Your task to perform on an android device: toggle location history Image 0: 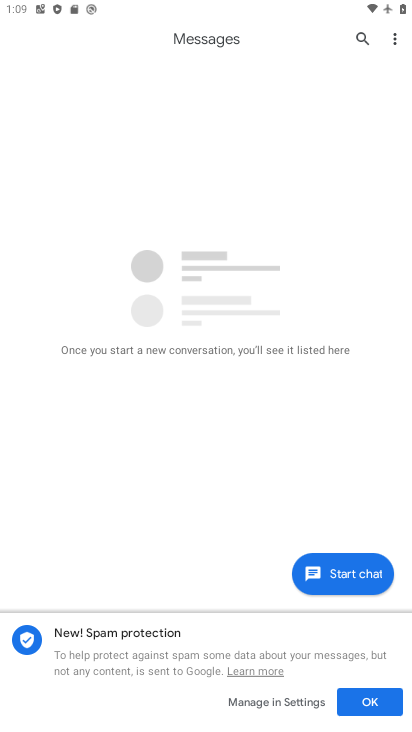
Step 0: press home button
Your task to perform on an android device: toggle location history Image 1: 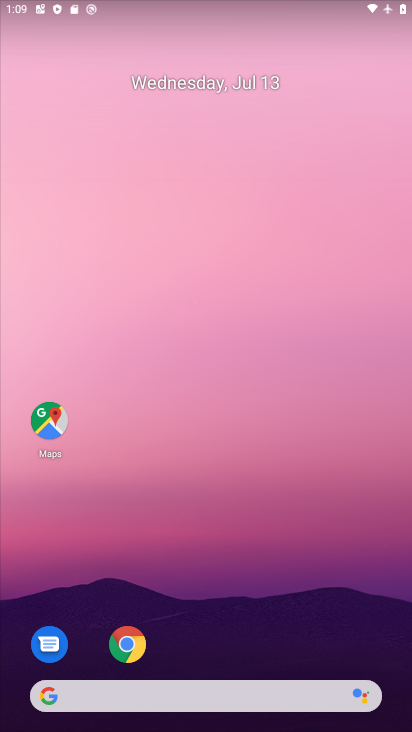
Step 1: drag from (321, 587) to (323, 37)
Your task to perform on an android device: toggle location history Image 2: 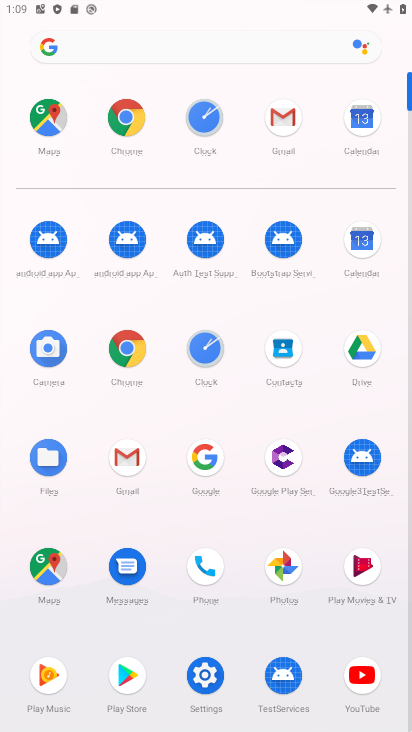
Step 2: click (211, 679)
Your task to perform on an android device: toggle location history Image 3: 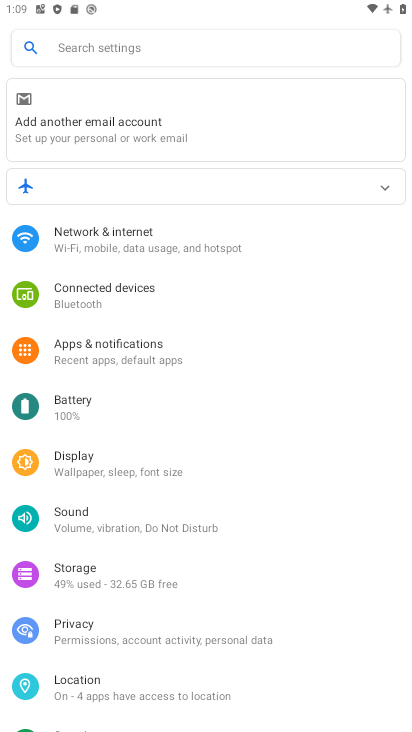
Step 3: drag from (168, 664) to (223, 312)
Your task to perform on an android device: toggle location history Image 4: 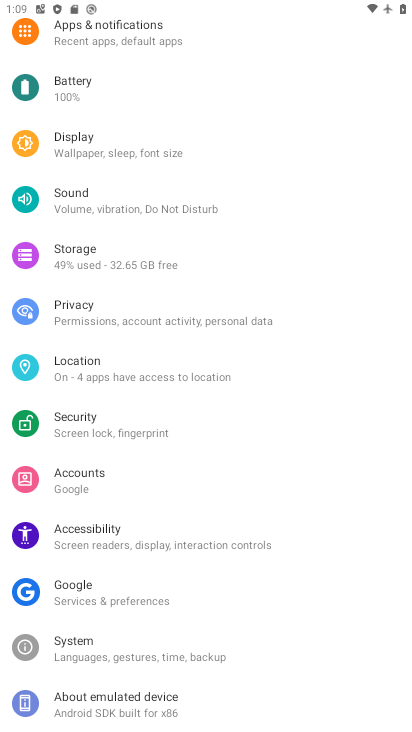
Step 4: click (87, 361)
Your task to perform on an android device: toggle location history Image 5: 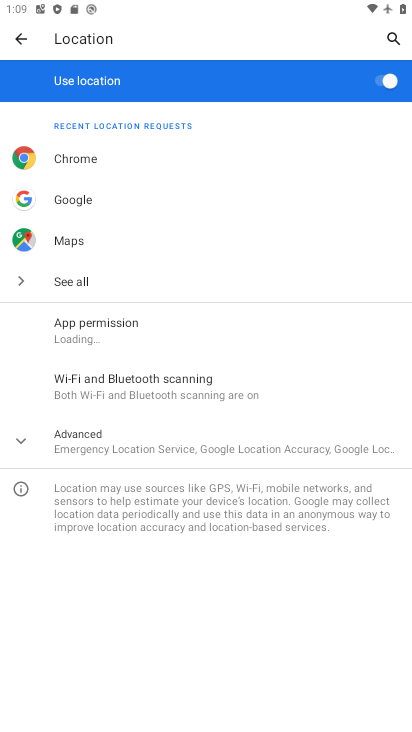
Step 5: click (171, 447)
Your task to perform on an android device: toggle location history Image 6: 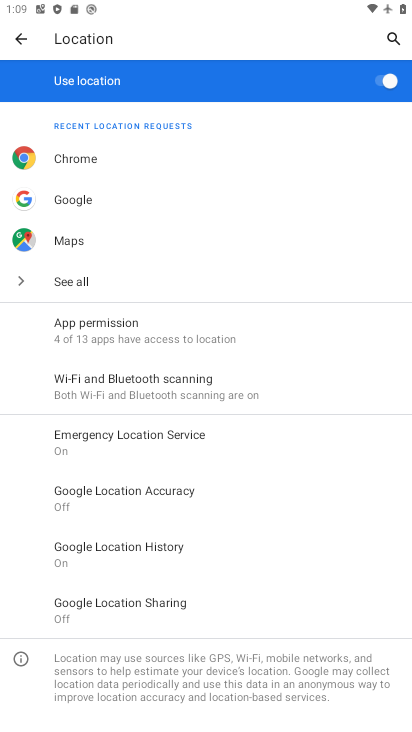
Step 6: click (169, 546)
Your task to perform on an android device: toggle location history Image 7: 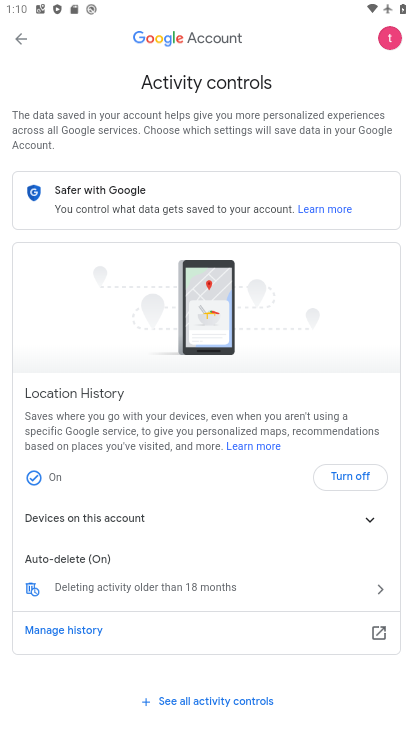
Step 7: click (358, 474)
Your task to perform on an android device: toggle location history Image 8: 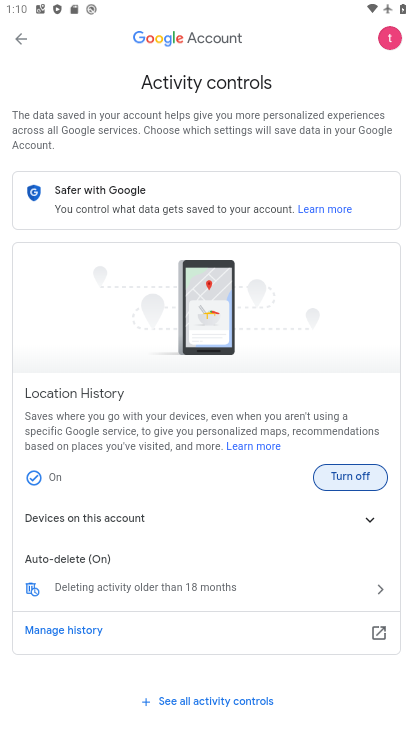
Step 8: click (357, 471)
Your task to perform on an android device: toggle location history Image 9: 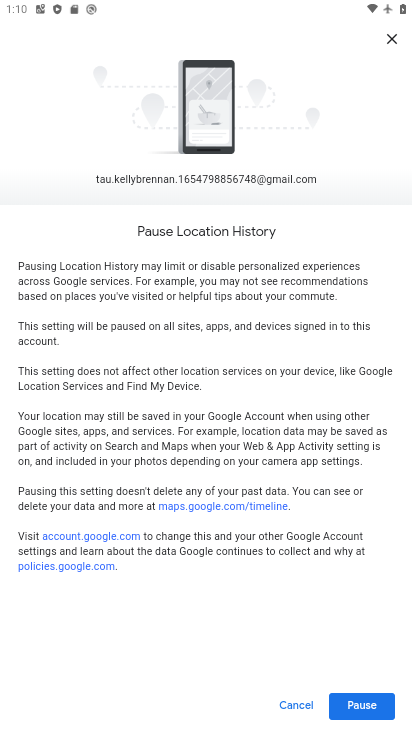
Step 9: click (355, 706)
Your task to perform on an android device: toggle location history Image 10: 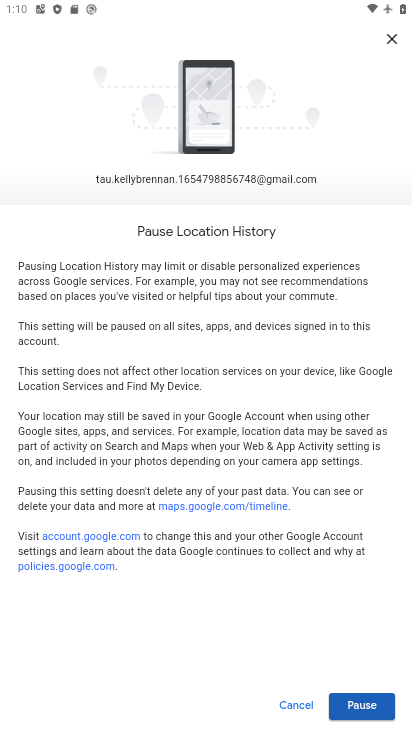
Step 10: click (367, 717)
Your task to perform on an android device: toggle location history Image 11: 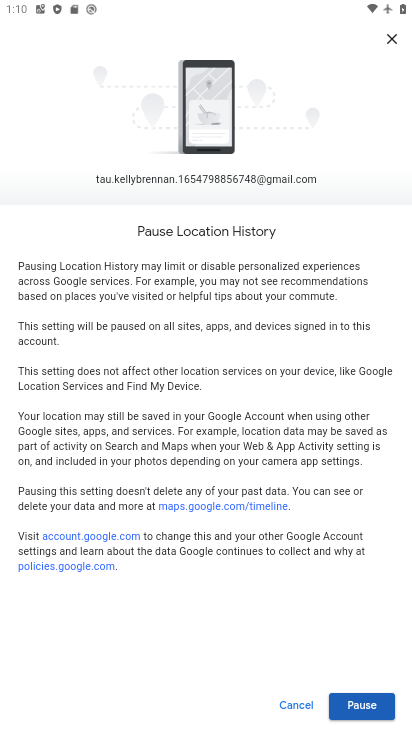
Step 11: click (365, 707)
Your task to perform on an android device: toggle location history Image 12: 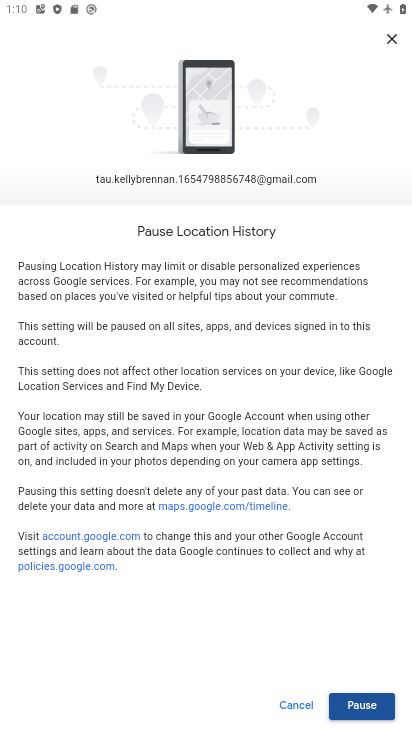
Step 12: click (365, 707)
Your task to perform on an android device: toggle location history Image 13: 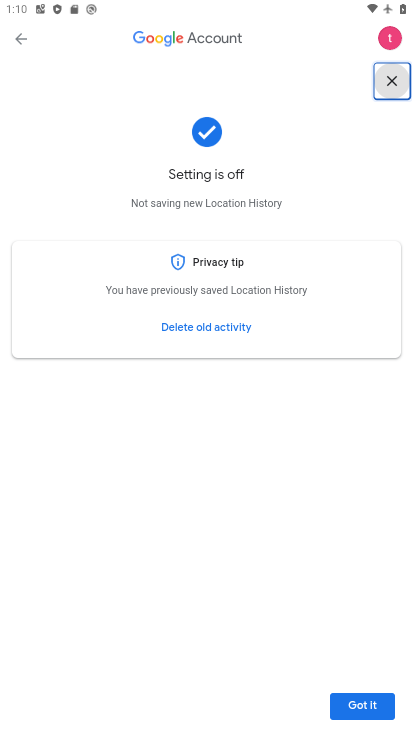
Step 13: task complete